Your task to perform on an android device: Is it going to rain today? Image 0: 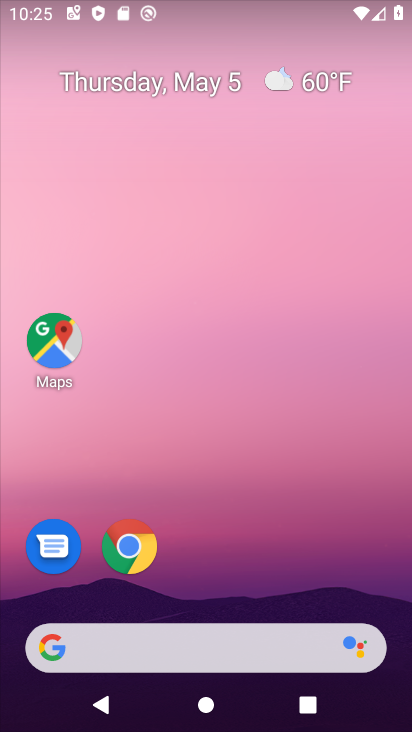
Step 0: drag from (262, 603) to (256, 234)
Your task to perform on an android device: Is it going to rain today? Image 1: 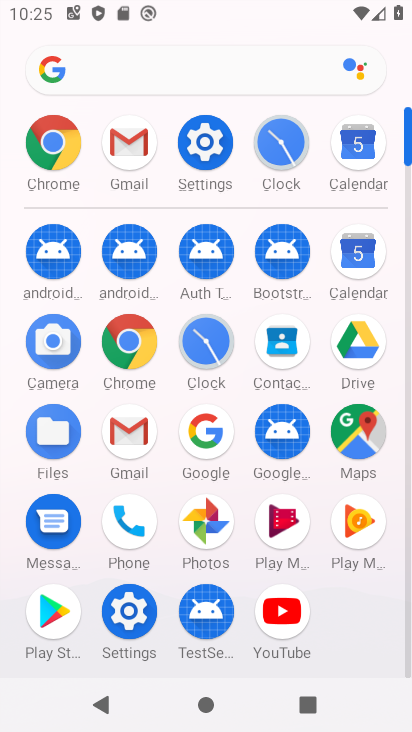
Step 1: click (99, 72)
Your task to perform on an android device: Is it going to rain today? Image 2: 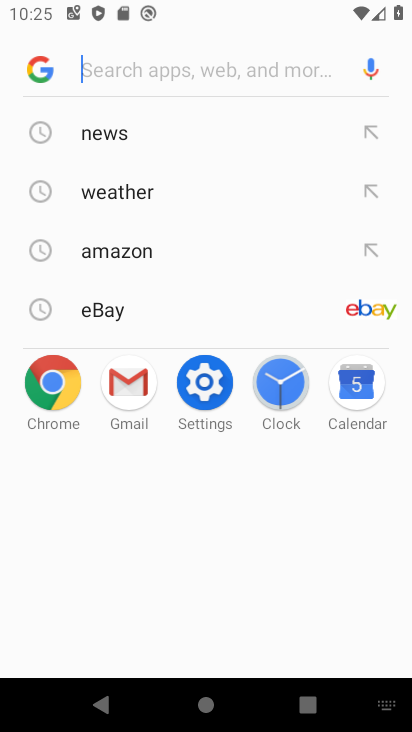
Step 2: type "is it going to rain today"
Your task to perform on an android device: Is it going to rain today? Image 3: 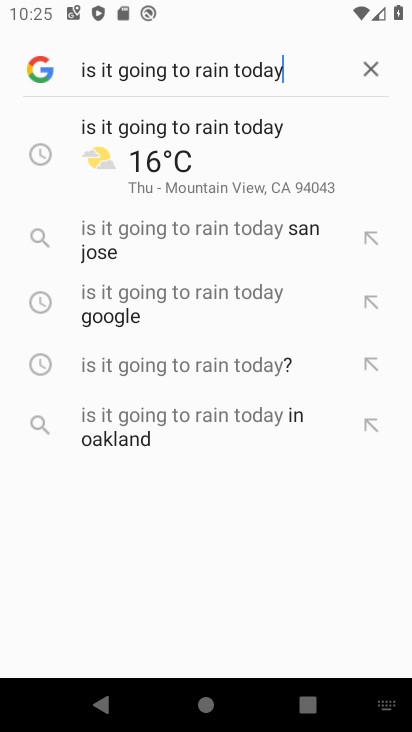
Step 3: click (161, 166)
Your task to perform on an android device: Is it going to rain today? Image 4: 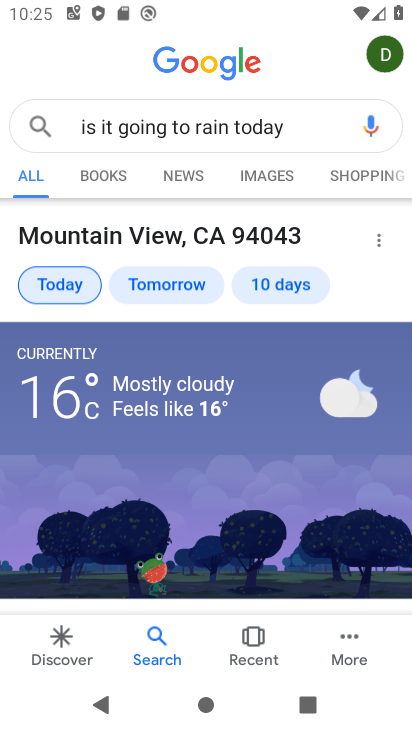
Step 4: task complete